Your task to perform on an android device: Show me productivity apps on the Play Store Image 0: 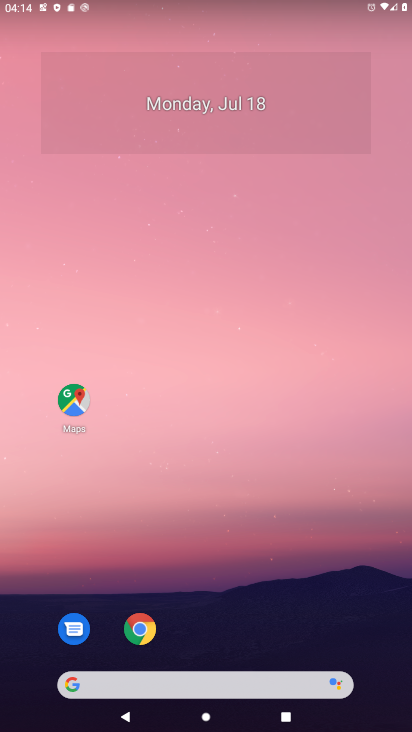
Step 0: drag from (357, 563) to (287, 176)
Your task to perform on an android device: Show me productivity apps on the Play Store Image 1: 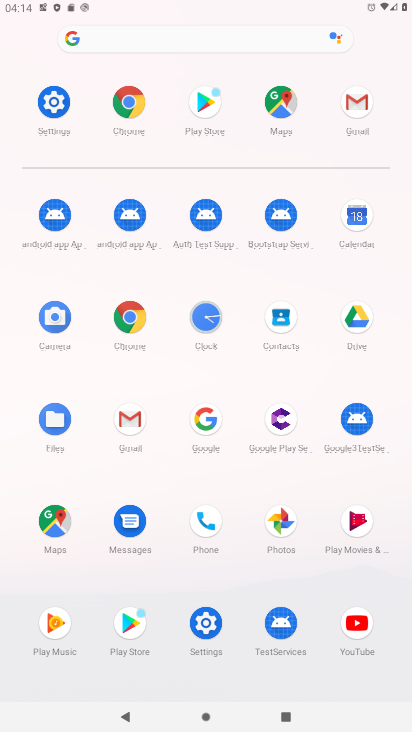
Step 1: click (129, 621)
Your task to perform on an android device: Show me productivity apps on the Play Store Image 2: 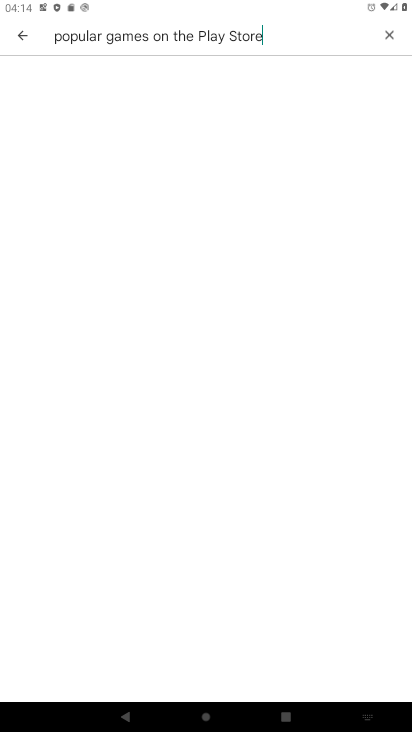
Step 2: click (324, 35)
Your task to perform on an android device: Show me productivity apps on the Play Store Image 3: 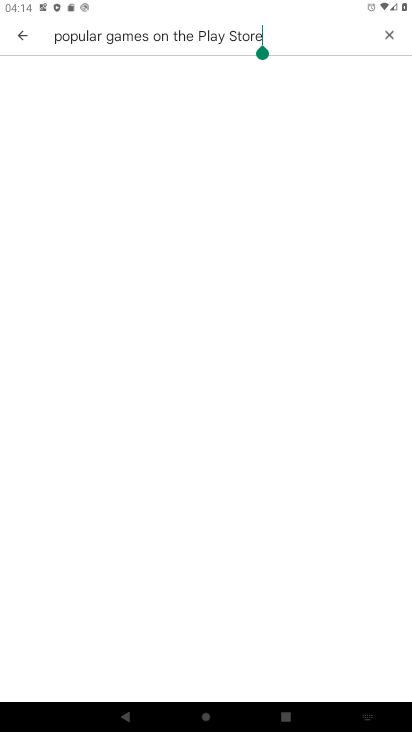
Step 3: task complete